Your task to perform on an android device: turn on airplane mode Image 0: 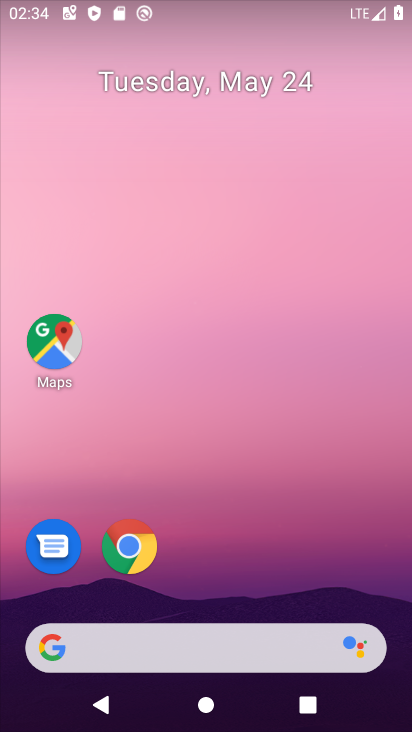
Step 0: drag from (147, 583) to (188, 136)
Your task to perform on an android device: turn on airplane mode Image 1: 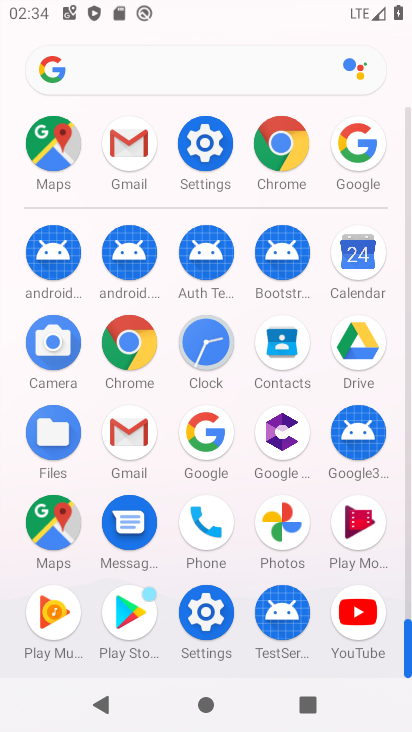
Step 1: click (210, 133)
Your task to perform on an android device: turn on airplane mode Image 2: 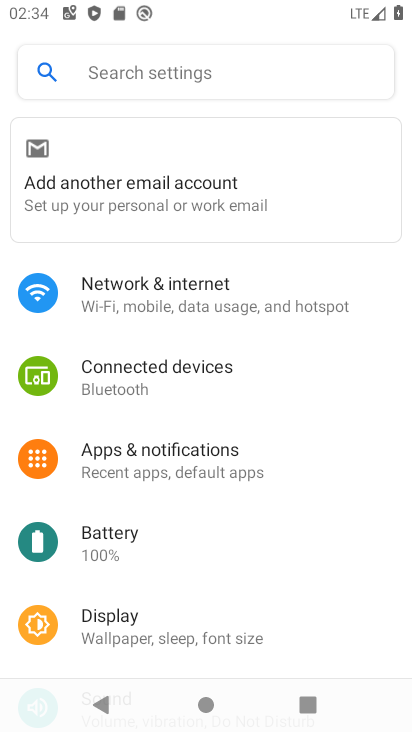
Step 2: click (139, 285)
Your task to perform on an android device: turn on airplane mode Image 3: 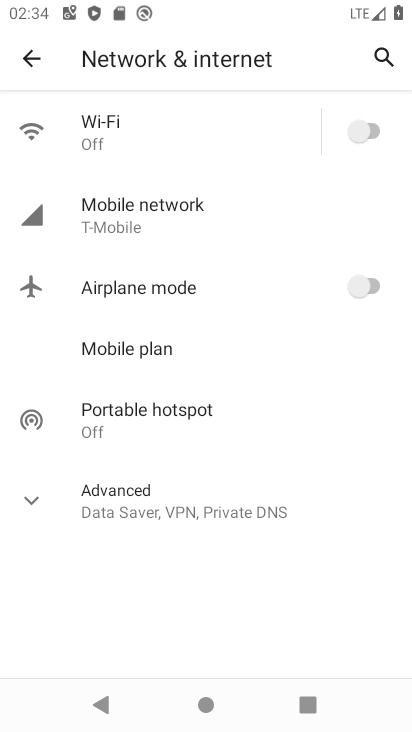
Step 3: click (211, 297)
Your task to perform on an android device: turn on airplane mode Image 4: 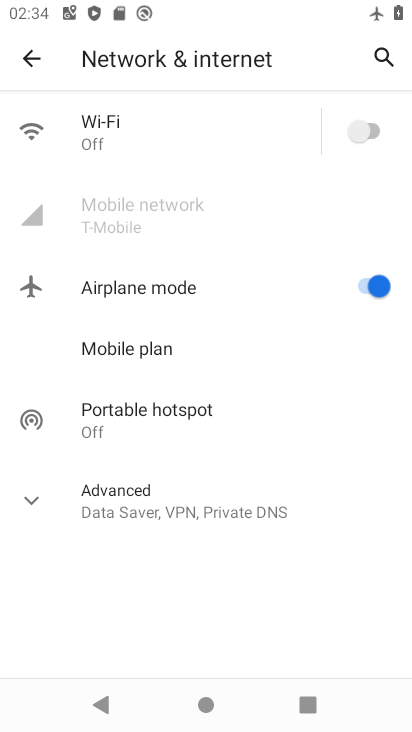
Step 4: task complete